Your task to perform on an android device: toggle data saver in the chrome app Image 0: 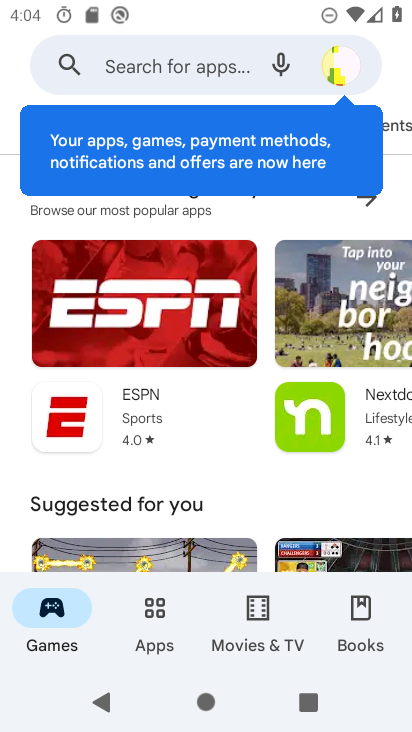
Step 0: press home button
Your task to perform on an android device: toggle data saver in the chrome app Image 1: 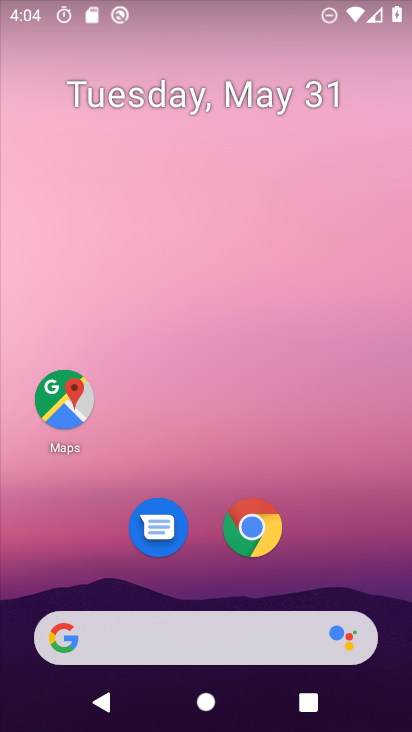
Step 1: click (262, 546)
Your task to perform on an android device: toggle data saver in the chrome app Image 2: 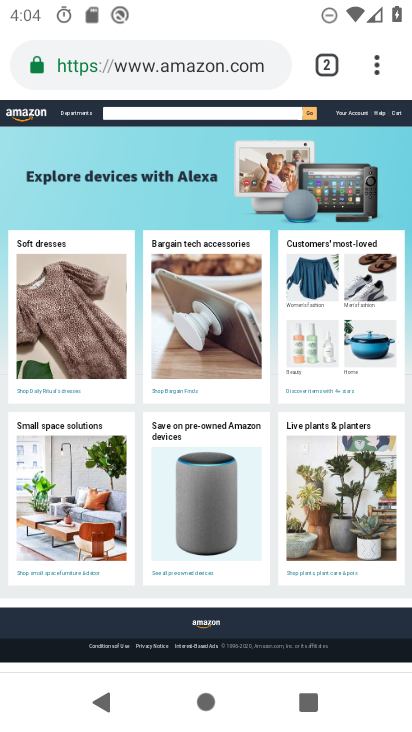
Step 2: click (382, 76)
Your task to perform on an android device: toggle data saver in the chrome app Image 3: 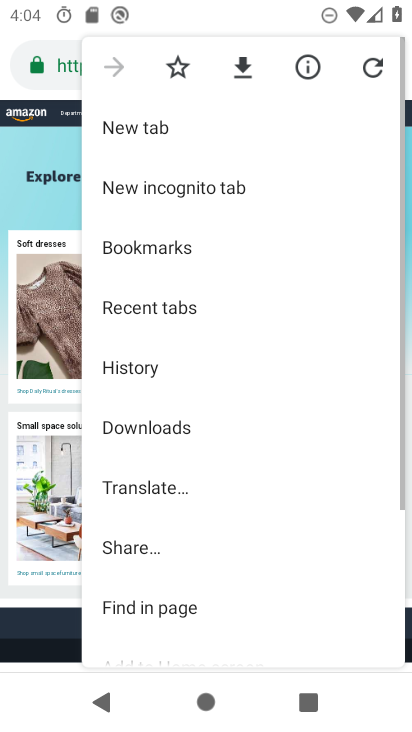
Step 3: drag from (257, 583) to (257, 168)
Your task to perform on an android device: toggle data saver in the chrome app Image 4: 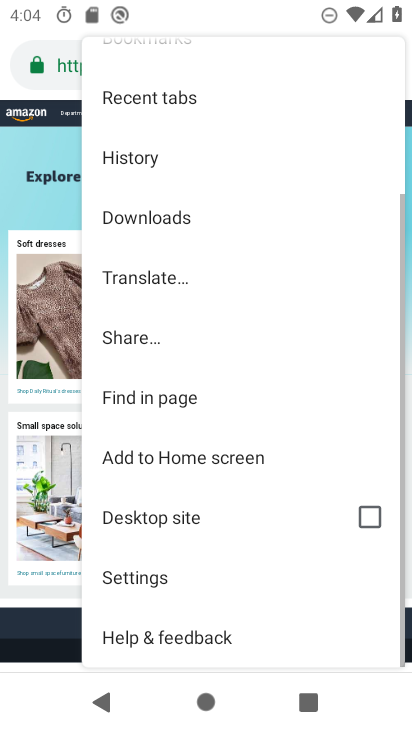
Step 4: click (163, 560)
Your task to perform on an android device: toggle data saver in the chrome app Image 5: 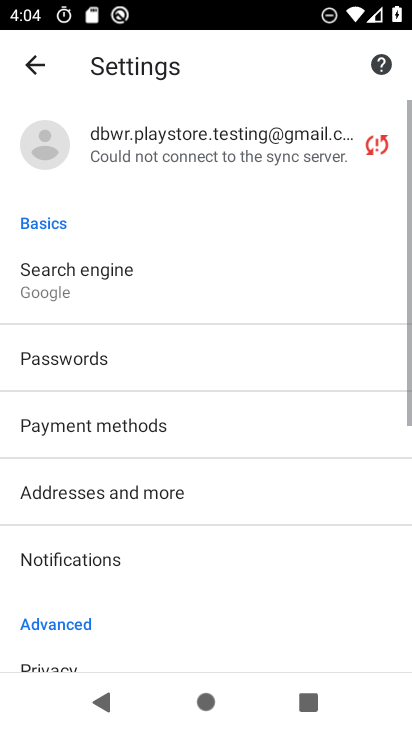
Step 5: drag from (182, 575) to (144, 61)
Your task to perform on an android device: toggle data saver in the chrome app Image 6: 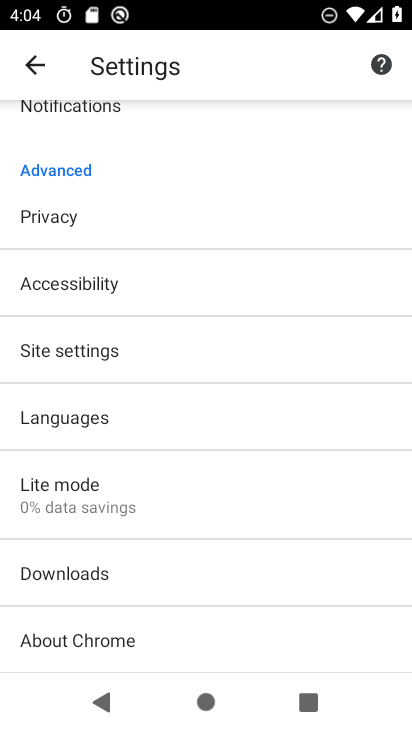
Step 6: click (59, 485)
Your task to perform on an android device: toggle data saver in the chrome app Image 7: 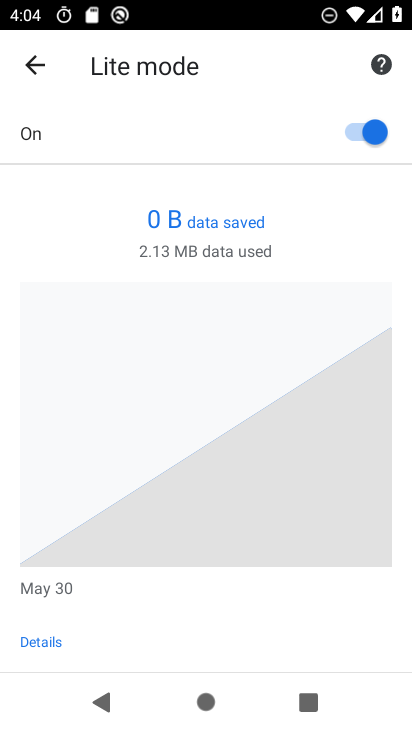
Step 7: click (337, 134)
Your task to perform on an android device: toggle data saver in the chrome app Image 8: 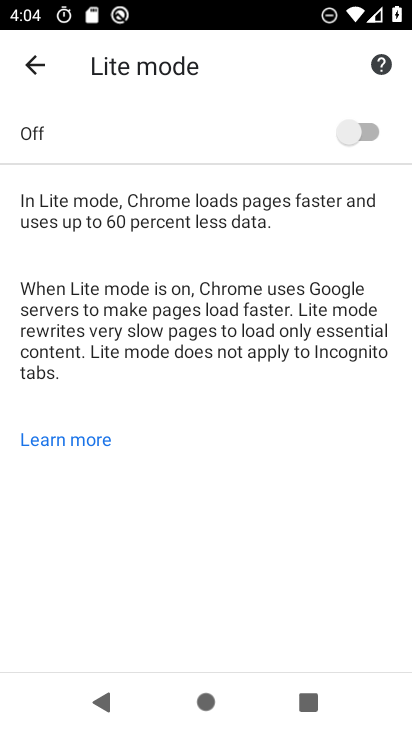
Step 8: task complete